Your task to perform on an android device: open the mobile data screen to see how much data has been used Image 0: 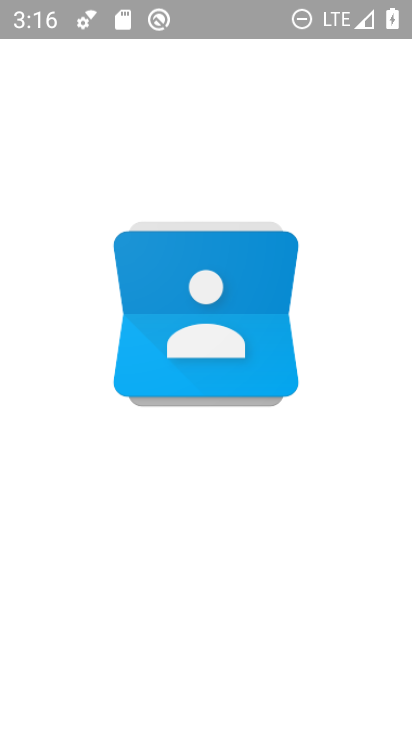
Step 0: drag from (336, 562) to (313, 231)
Your task to perform on an android device: open the mobile data screen to see how much data has been used Image 1: 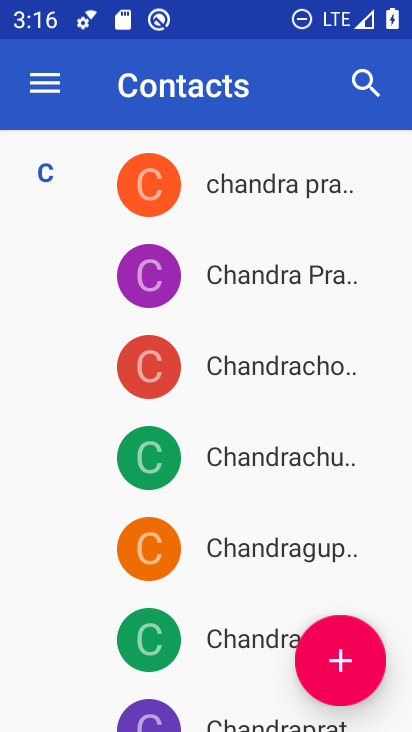
Step 1: press home button
Your task to perform on an android device: open the mobile data screen to see how much data has been used Image 2: 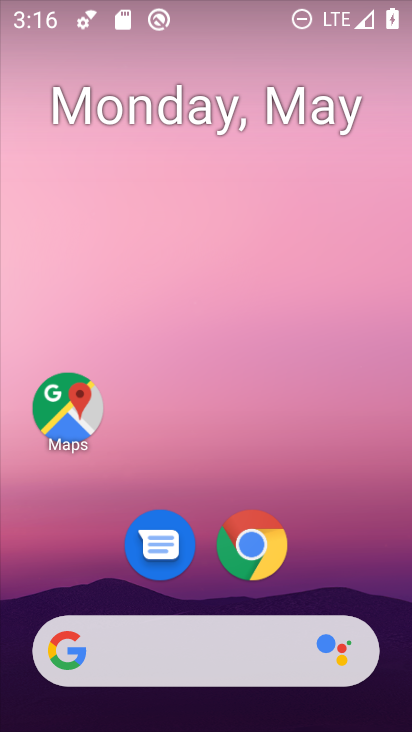
Step 2: drag from (320, 549) to (321, 126)
Your task to perform on an android device: open the mobile data screen to see how much data has been used Image 3: 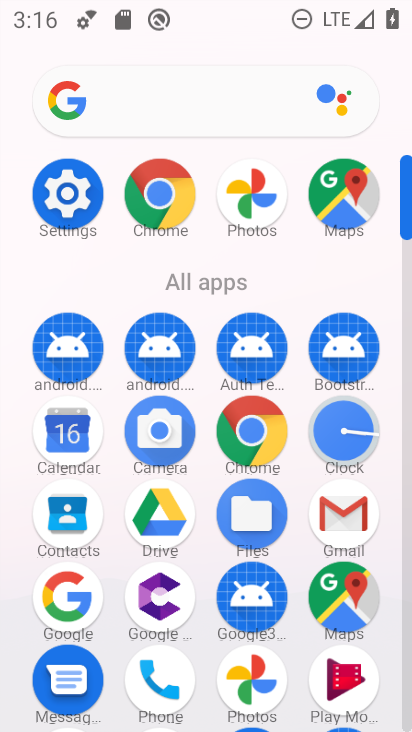
Step 3: click (70, 214)
Your task to perform on an android device: open the mobile data screen to see how much data has been used Image 4: 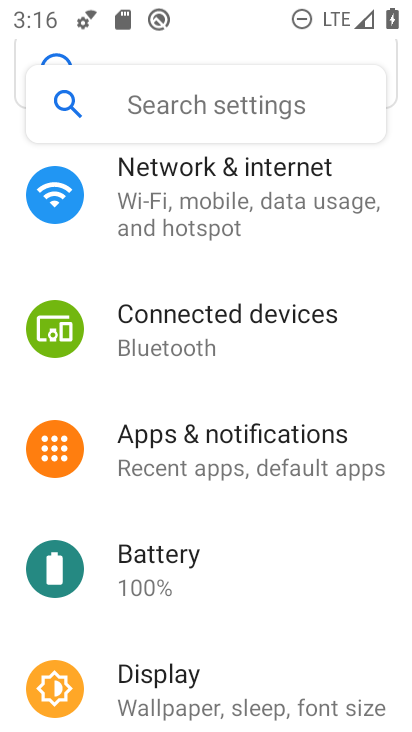
Step 4: click (195, 215)
Your task to perform on an android device: open the mobile data screen to see how much data has been used Image 5: 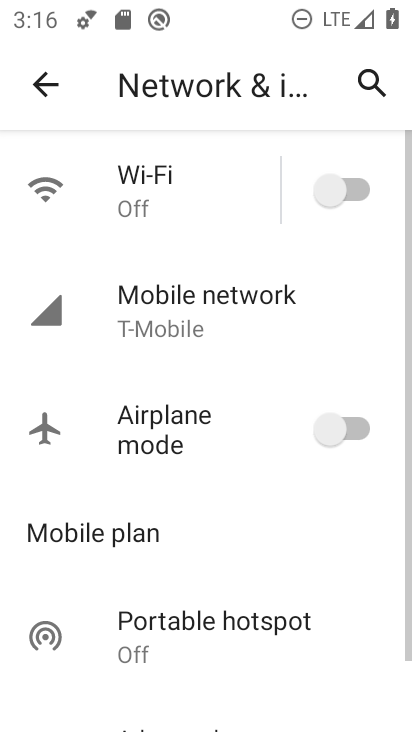
Step 5: click (207, 328)
Your task to perform on an android device: open the mobile data screen to see how much data has been used Image 6: 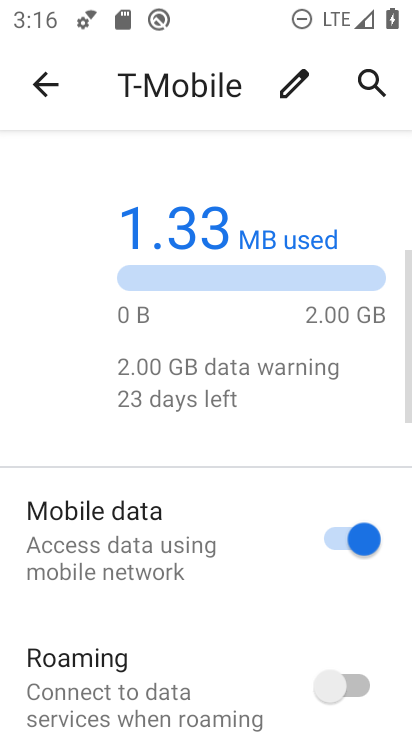
Step 6: drag from (144, 670) to (175, 281)
Your task to perform on an android device: open the mobile data screen to see how much data has been used Image 7: 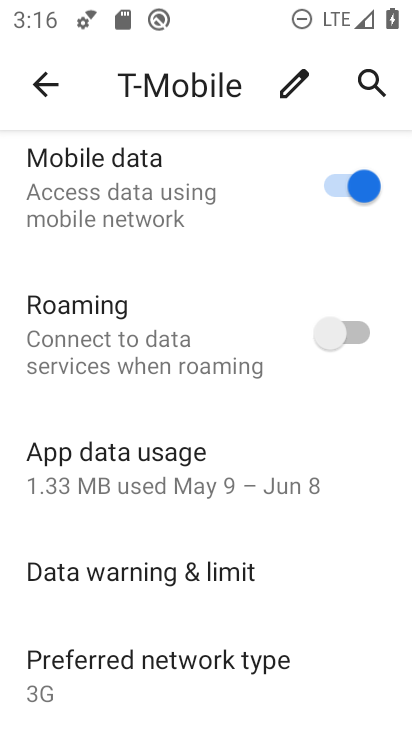
Step 7: click (168, 466)
Your task to perform on an android device: open the mobile data screen to see how much data has been used Image 8: 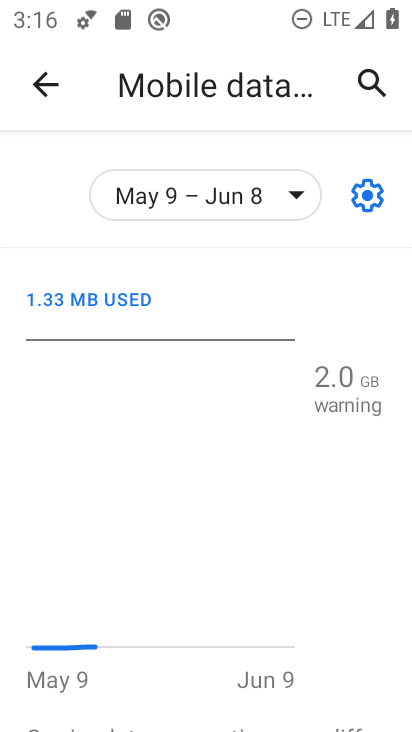
Step 8: task complete